Your task to perform on an android device: When is my next meeting? Image 0: 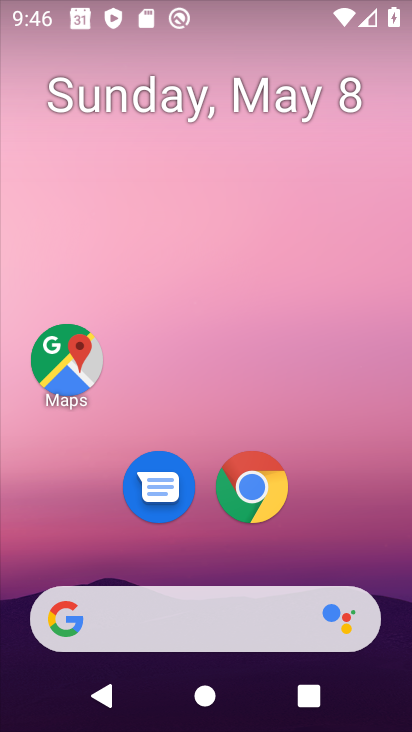
Step 0: drag from (353, 512) to (349, 49)
Your task to perform on an android device: When is my next meeting? Image 1: 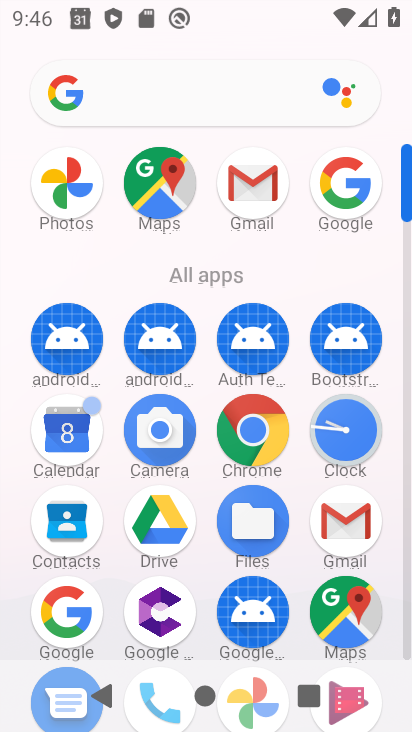
Step 1: click (85, 416)
Your task to perform on an android device: When is my next meeting? Image 2: 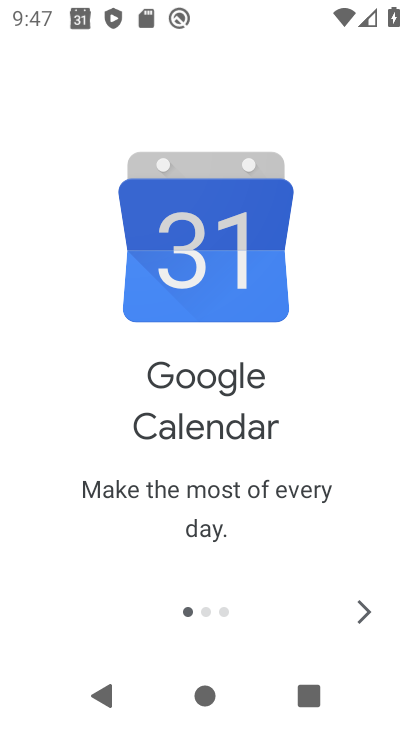
Step 2: click (367, 621)
Your task to perform on an android device: When is my next meeting? Image 3: 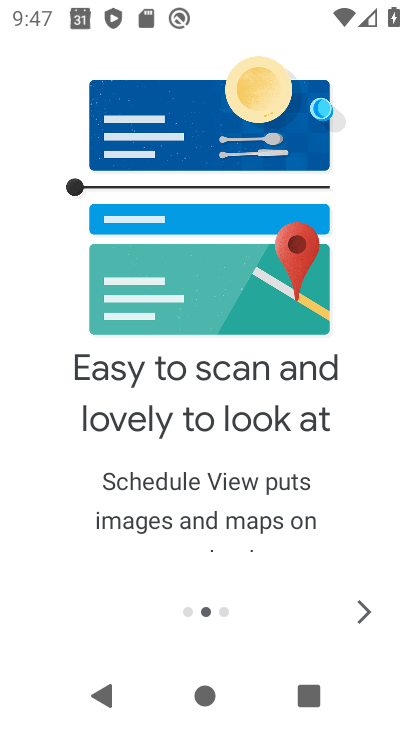
Step 3: click (367, 621)
Your task to perform on an android device: When is my next meeting? Image 4: 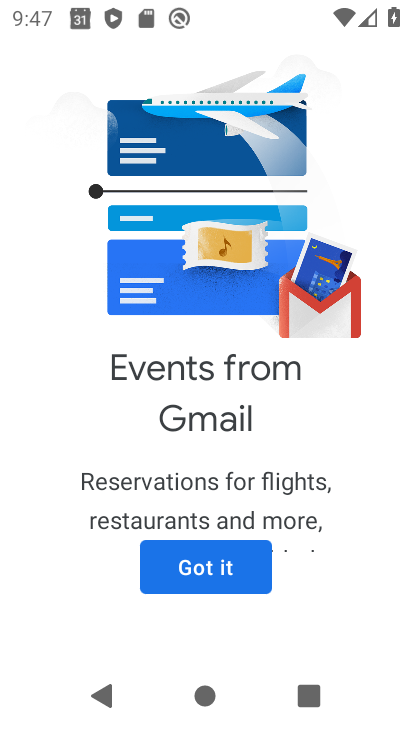
Step 4: click (246, 579)
Your task to perform on an android device: When is my next meeting? Image 5: 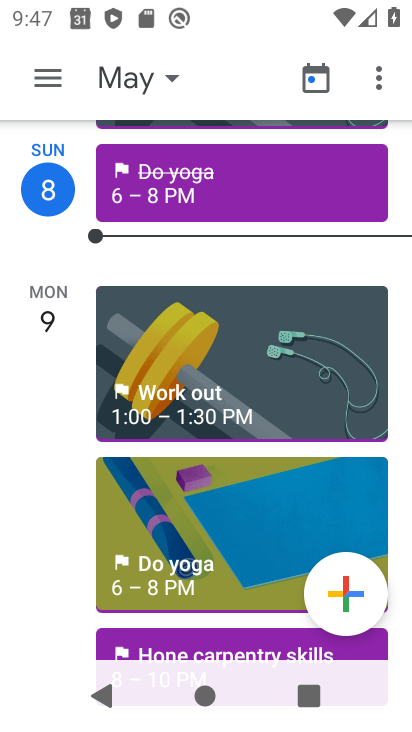
Step 5: click (149, 91)
Your task to perform on an android device: When is my next meeting? Image 6: 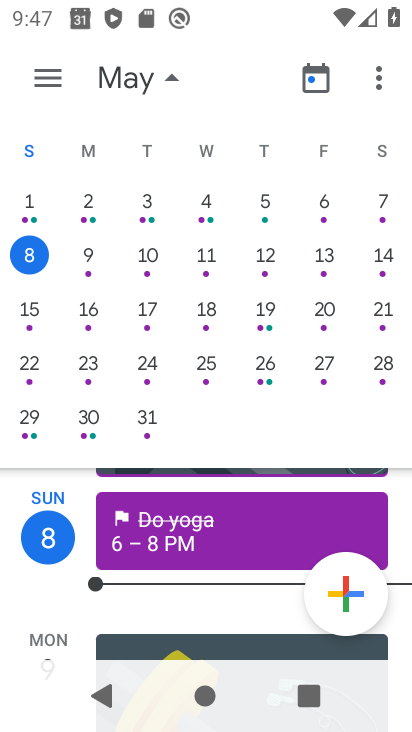
Step 6: drag from (398, 647) to (400, 311)
Your task to perform on an android device: When is my next meeting? Image 7: 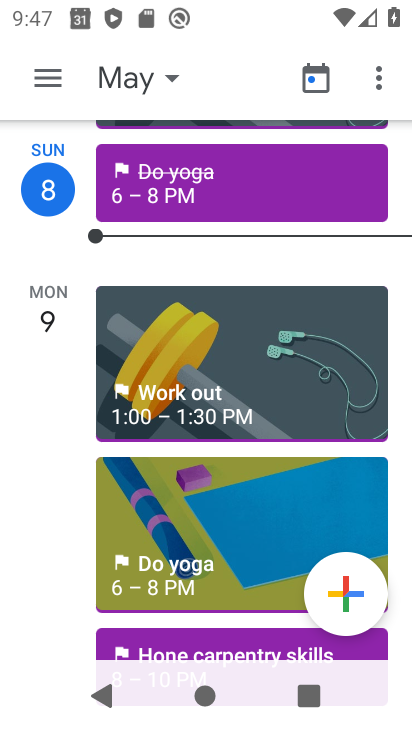
Step 7: drag from (405, 302) to (393, 556)
Your task to perform on an android device: When is my next meeting? Image 8: 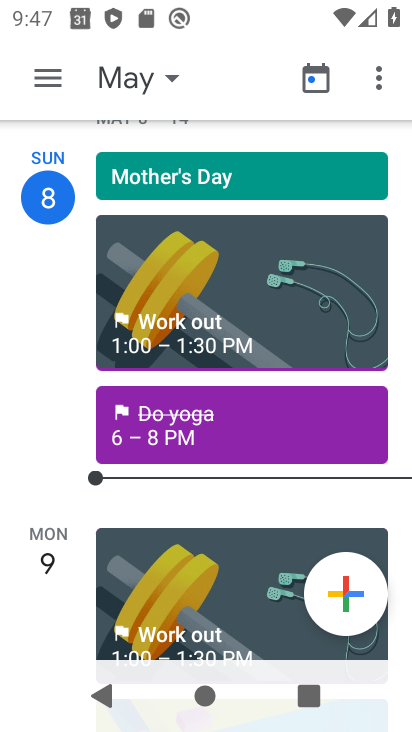
Step 8: drag from (411, 315) to (405, 528)
Your task to perform on an android device: When is my next meeting? Image 9: 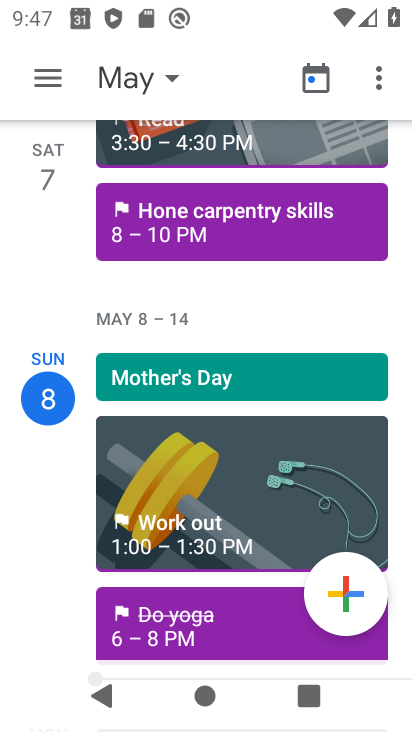
Step 9: drag from (410, 240) to (408, 429)
Your task to perform on an android device: When is my next meeting? Image 10: 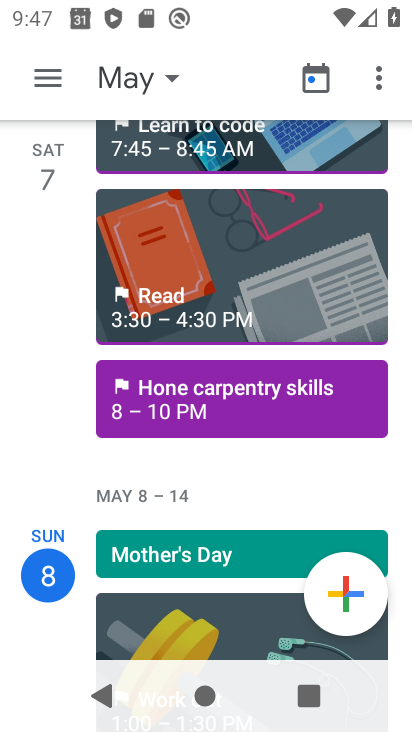
Step 10: drag from (406, 300) to (410, 509)
Your task to perform on an android device: When is my next meeting? Image 11: 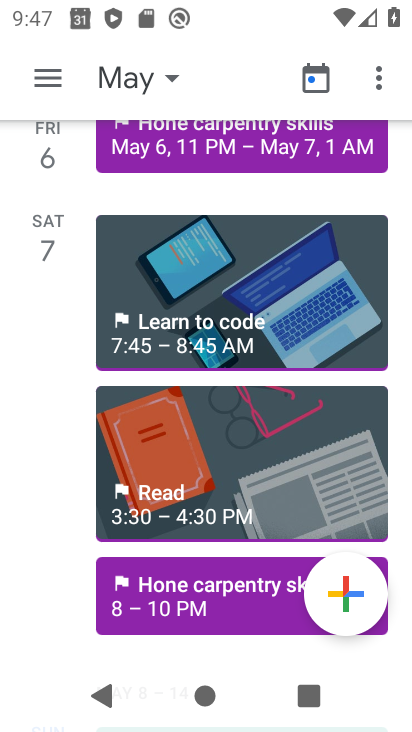
Step 11: click (143, 85)
Your task to perform on an android device: When is my next meeting? Image 12: 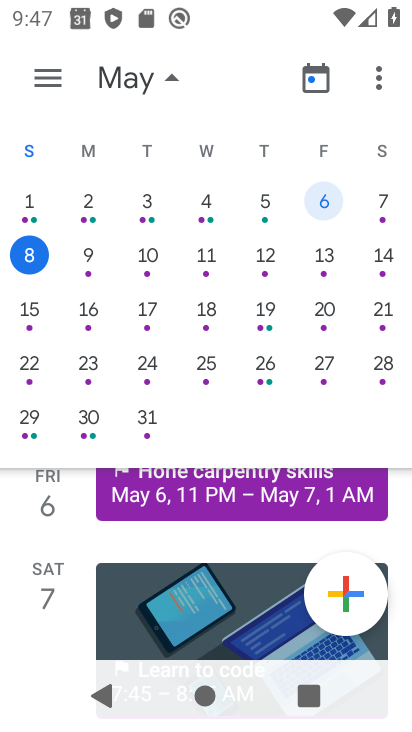
Step 12: click (95, 260)
Your task to perform on an android device: When is my next meeting? Image 13: 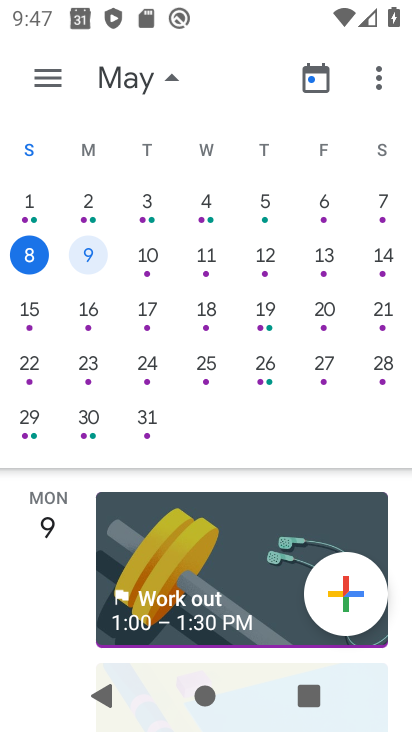
Step 13: task complete